Your task to perform on an android device: open device folders in google photos Image 0: 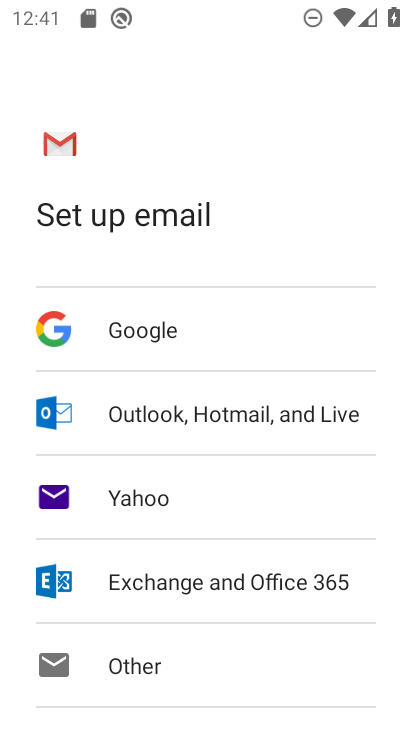
Step 0: press home button
Your task to perform on an android device: open device folders in google photos Image 1: 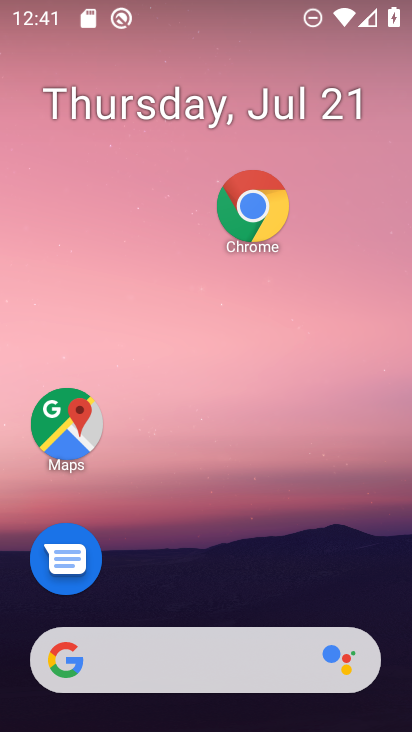
Step 1: drag from (174, 642) to (191, 155)
Your task to perform on an android device: open device folders in google photos Image 2: 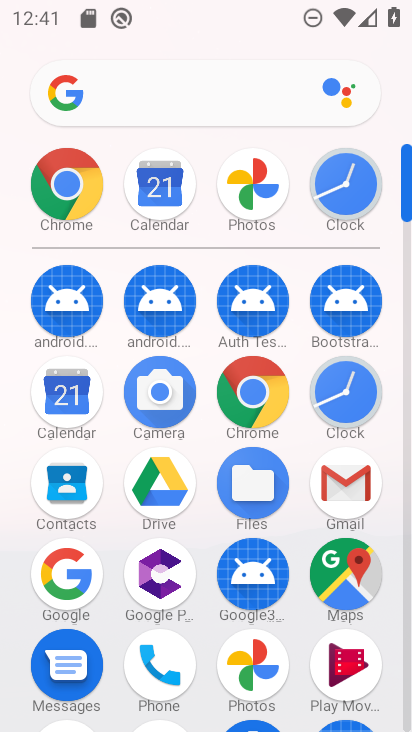
Step 2: drag from (179, 495) to (190, 118)
Your task to perform on an android device: open device folders in google photos Image 3: 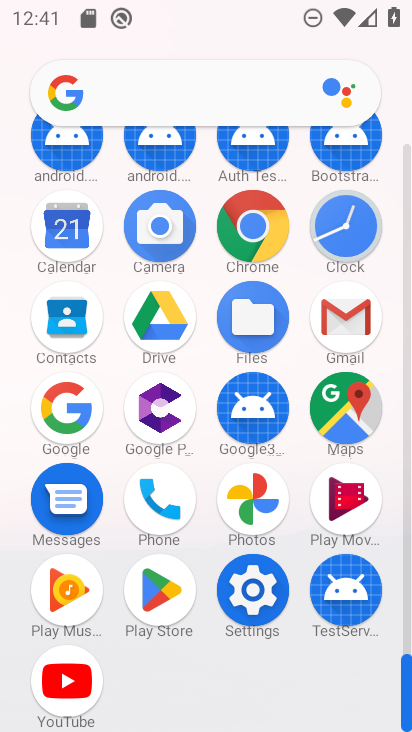
Step 3: click (263, 513)
Your task to perform on an android device: open device folders in google photos Image 4: 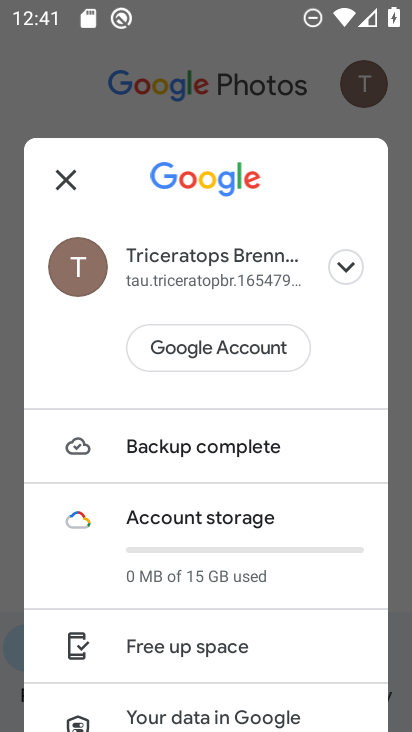
Step 4: task complete